Your task to perform on an android device: turn on notifications settings in the gmail app Image 0: 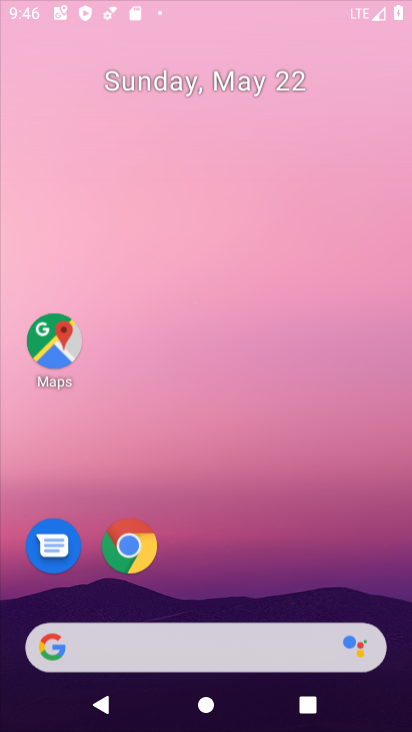
Step 0: drag from (342, 137) to (207, 73)
Your task to perform on an android device: turn on notifications settings in the gmail app Image 1: 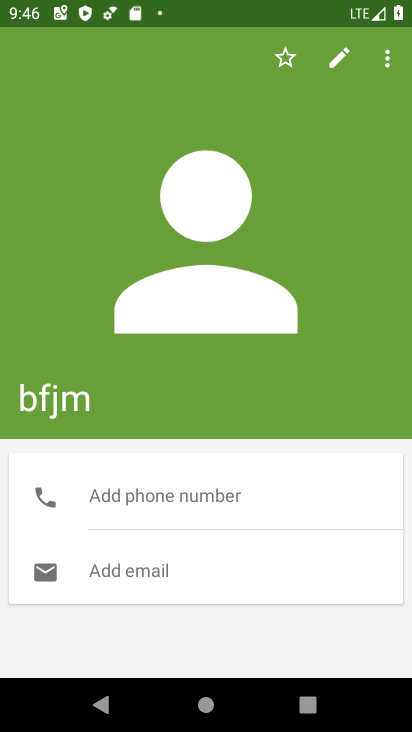
Step 1: drag from (214, 536) to (343, 218)
Your task to perform on an android device: turn on notifications settings in the gmail app Image 2: 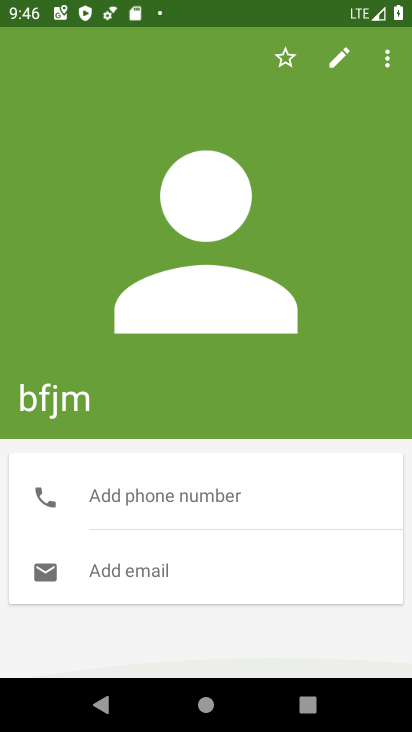
Step 2: press home button
Your task to perform on an android device: turn on notifications settings in the gmail app Image 3: 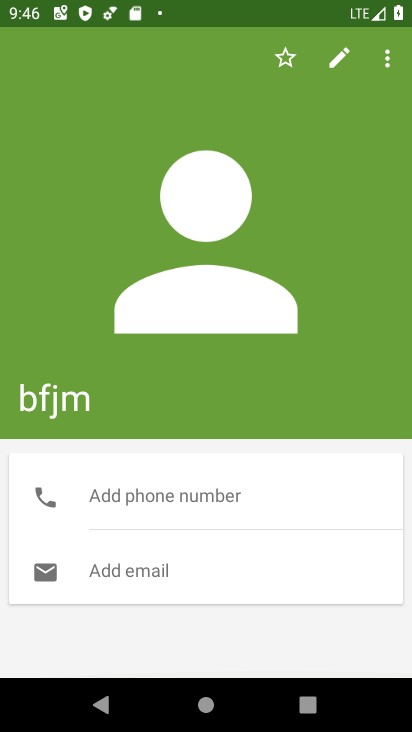
Step 3: drag from (343, 218) to (390, 581)
Your task to perform on an android device: turn on notifications settings in the gmail app Image 4: 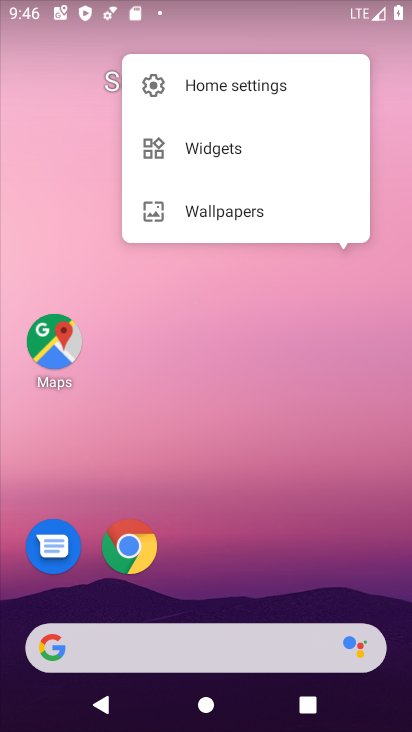
Step 4: drag from (195, 576) to (235, 120)
Your task to perform on an android device: turn on notifications settings in the gmail app Image 5: 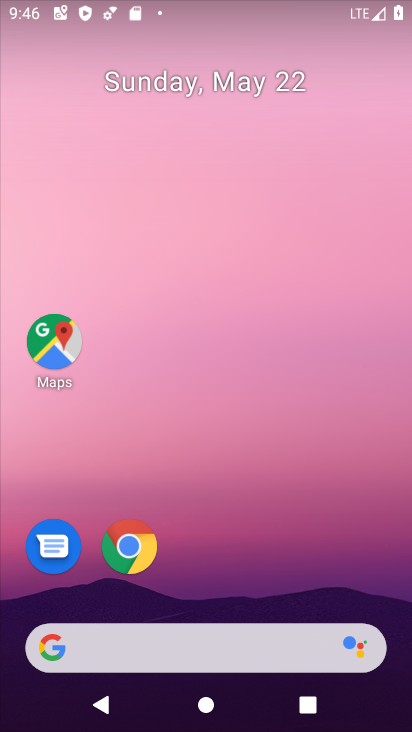
Step 5: drag from (192, 602) to (240, 47)
Your task to perform on an android device: turn on notifications settings in the gmail app Image 6: 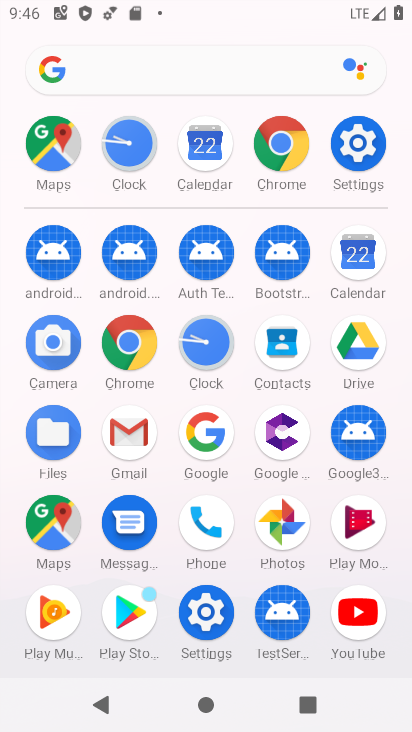
Step 6: click (126, 433)
Your task to perform on an android device: turn on notifications settings in the gmail app Image 7: 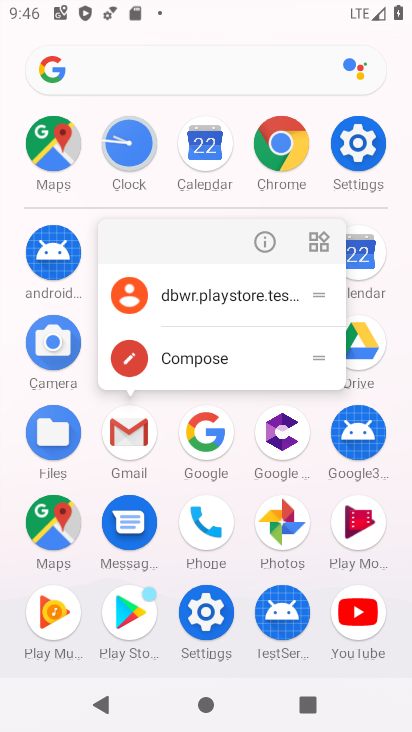
Step 7: click (230, 294)
Your task to perform on an android device: turn on notifications settings in the gmail app Image 8: 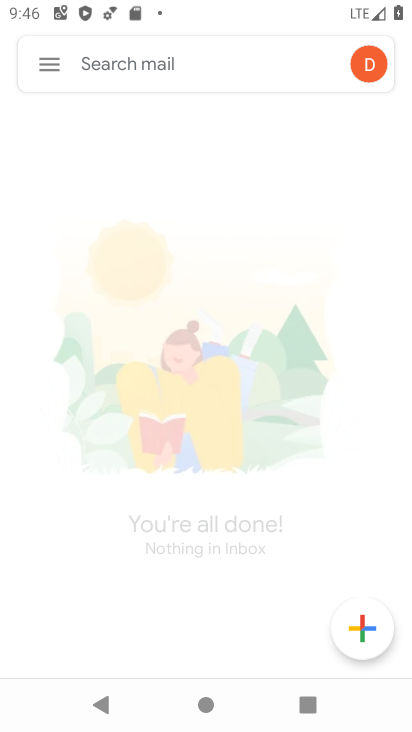
Step 8: click (34, 42)
Your task to perform on an android device: turn on notifications settings in the gmail app Image 9: 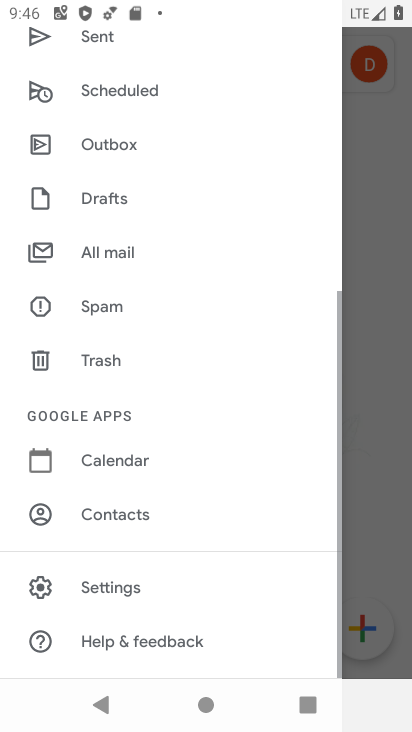
Step 9: drag from (154, 545) to (194, 170)
Your task to perform on an android device: turn on notifications settings in the gmail app Image 10: 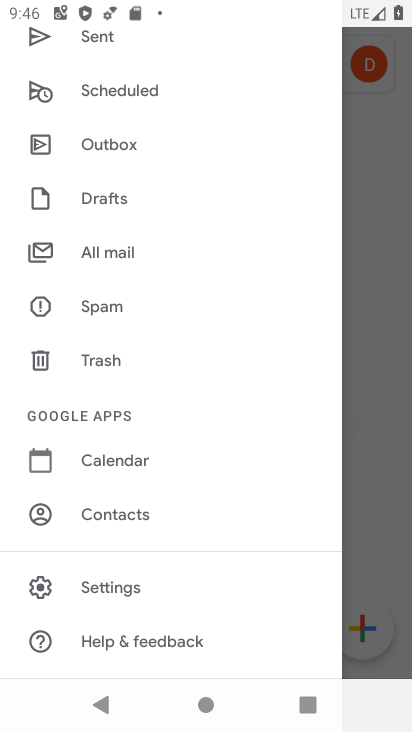
Step 10: click (129, 587)
Your task to perform on an android device: turn on notifications settings in the gmail app Image 11: 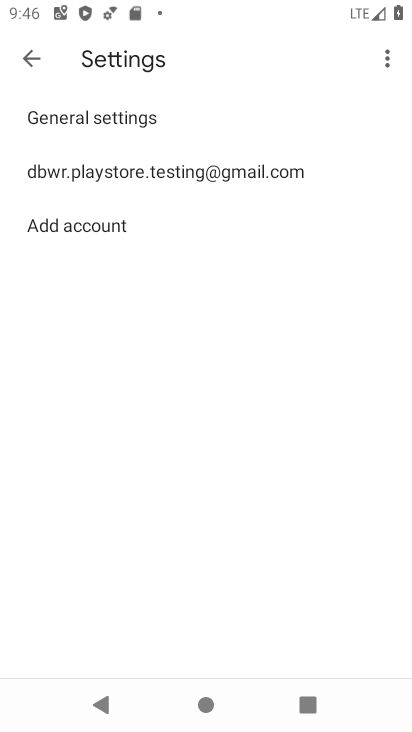
Step 11: click (135, 180)
Your task to perform on an android device: turn on notifications settings in the gmail app Image 12: 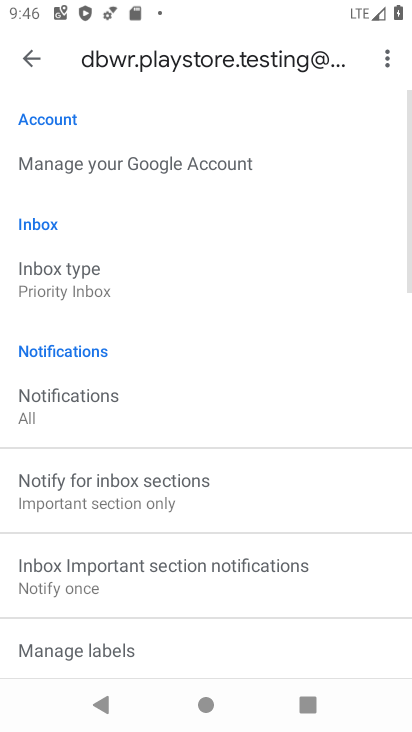
Step 12: drag from (111, 678) to (313, 159)
Your task to perform on an android device: turn on notifications settings in the gmail app Image 13: 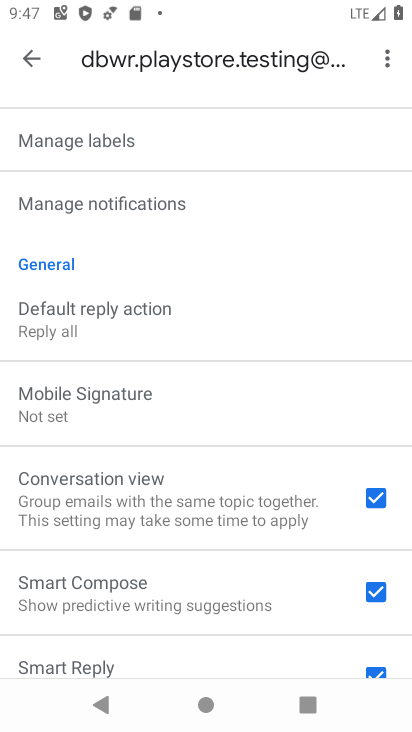
Step 13: click (140, 207)
Your task to perform on an android device: turn on notifications settings in the gmail app Image 14: 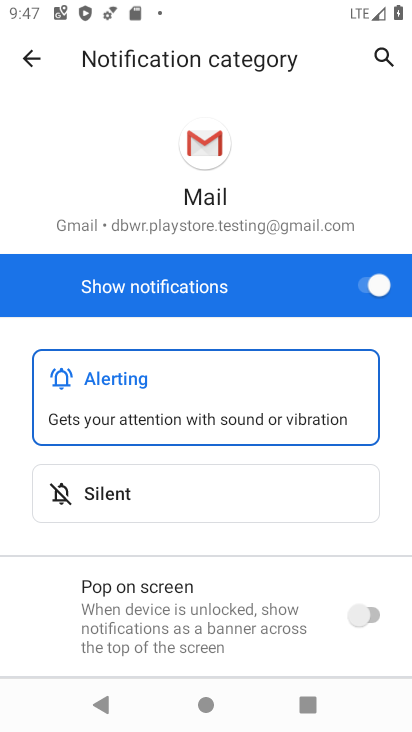
Step 14: task complete